Your task to perform on an android device: read, delete, or share a saved page in the chrome app Image 0: 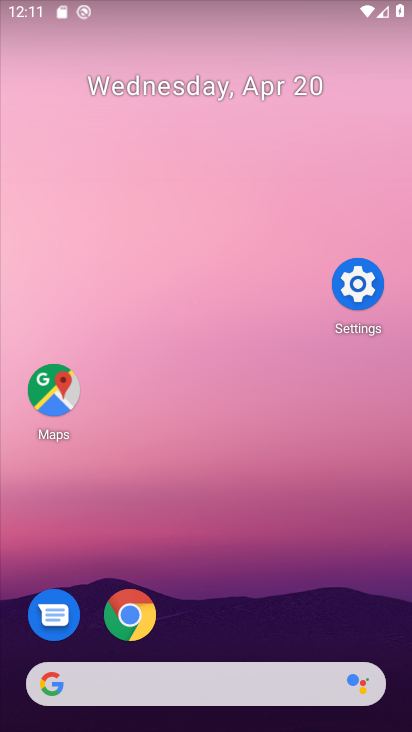
Step 0: click (406, 246)
Your task to perform on an android device: read, delete, or share a saved page in the chrome app Image 1: 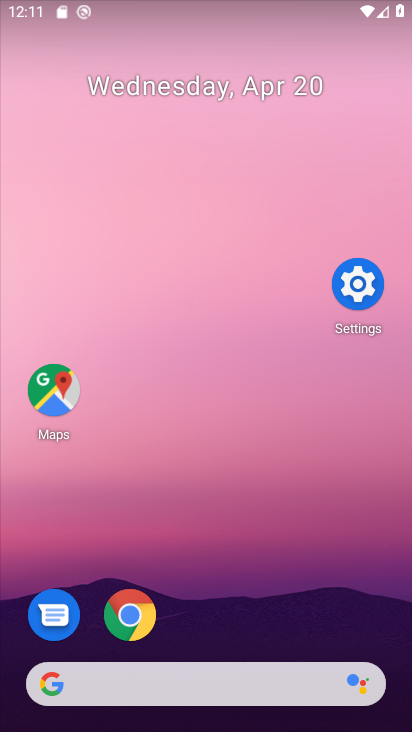
Step 1: drag from (192, 611) to (298, 143)
Your task to perform on an android device: read, delete, or share a saved page in the chrome app Image 2: 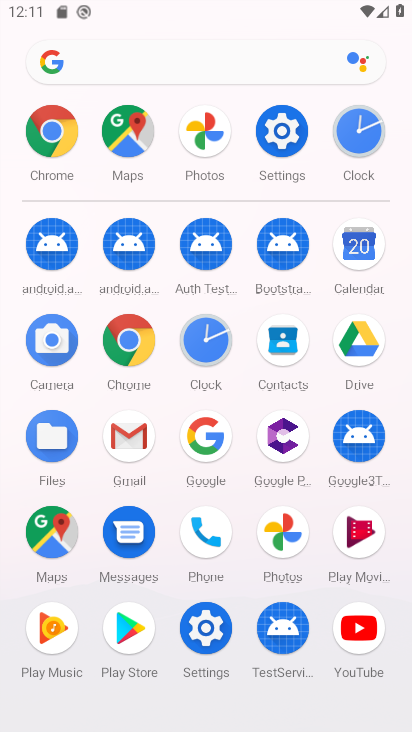
Step 2: click (125, 341)
Your task to perform on an android device: read, delete, or share a saved page in the chrome app Image 3: 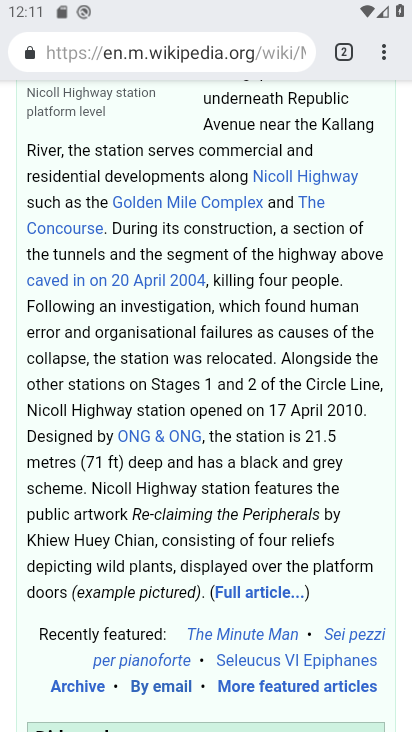
Step 3: drag from (206, 150) to (214, 455)
Your task to perform on an android device: read, delete, or share a saved page in the chrome app Image 4: 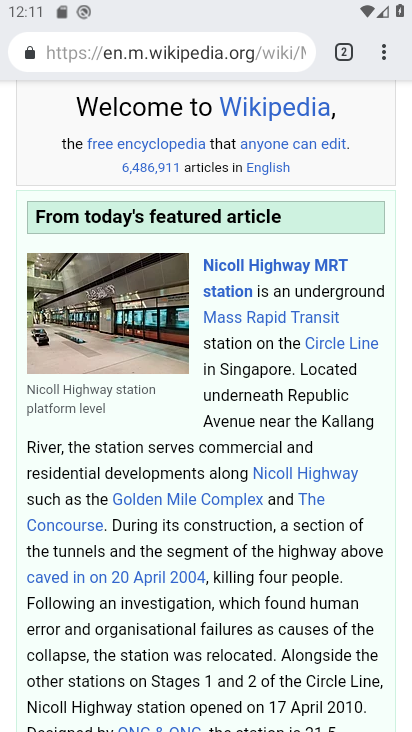
Step 4: drag from (389, 44) to (267, 269)
Your task to perform on an android device: read, delete, or share a saved page in the chrome app Image 5: 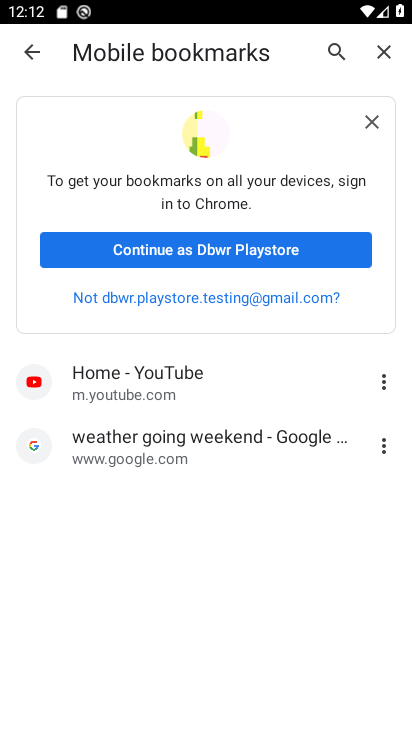
Step 5: click (198, 445)
Your task to perform on an android device: read, delete, or share a saved page in the chrome app Image 6: 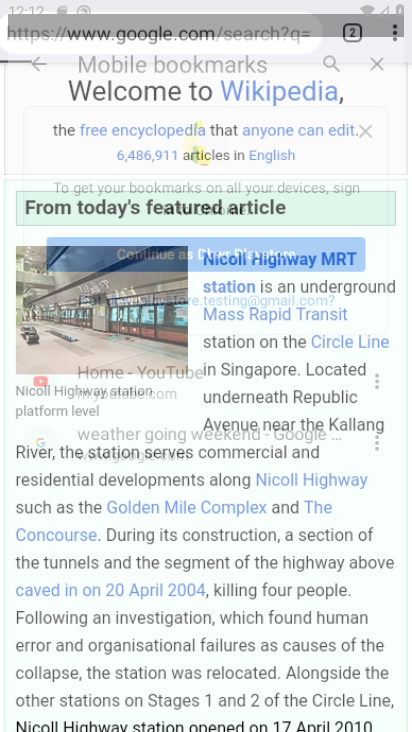
Step 6: task complete